Your task to perform on an android device: Is it going to rain today? Image 0: 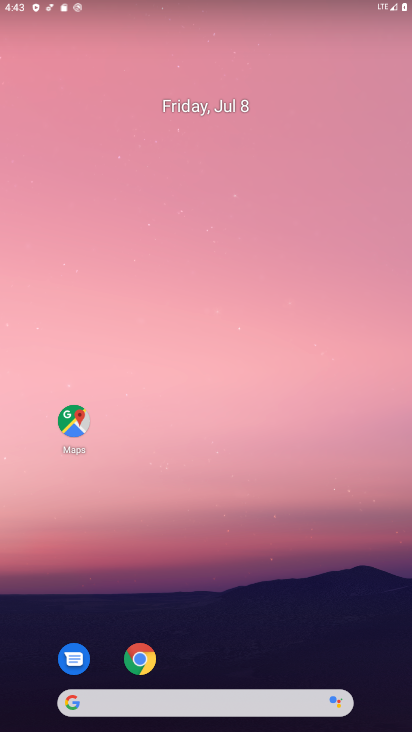
Step 0: drag from (288, 342) to (341, 86)
Your task to perform on an android device: Is it going to rain today? Image 1: 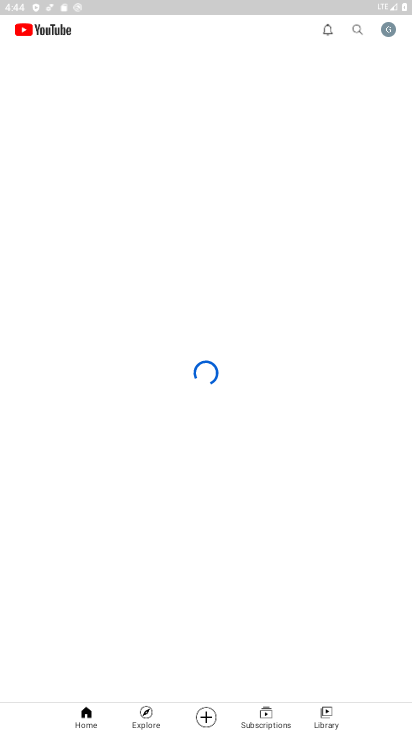
Step 1: press home button
Your task to perform on an android device: Is it going to rain today? Image 2: 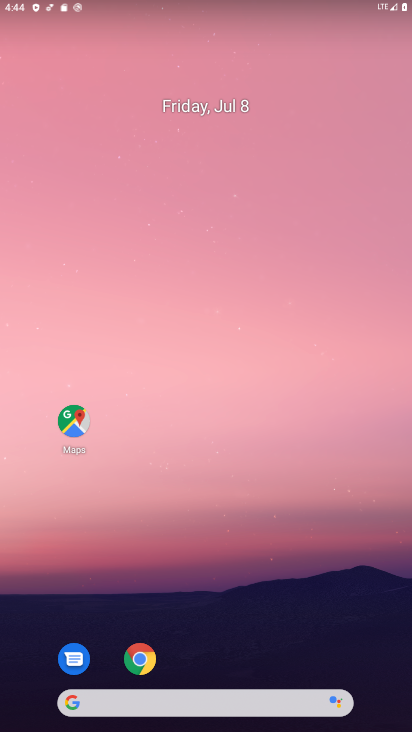
Step 2: click (128, 669)
Your task to perform on an android device: Is it going to rain today? Image 3: 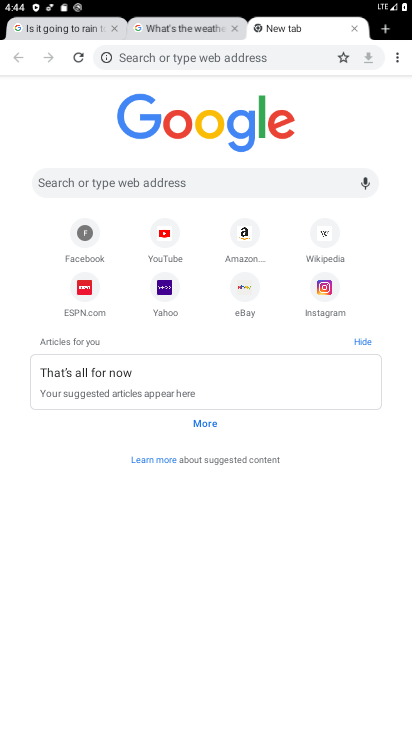
Step 3: click (209, 57)
Your task to perform on an android device: Is it going to rain today? Image 4: 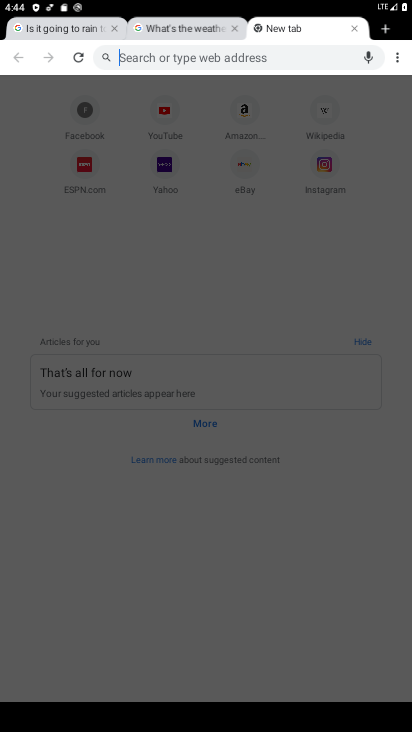
Step 4: type "Is it going to rain today?"
Your task to perform on an android device: Is it going to rain today? Image 5: 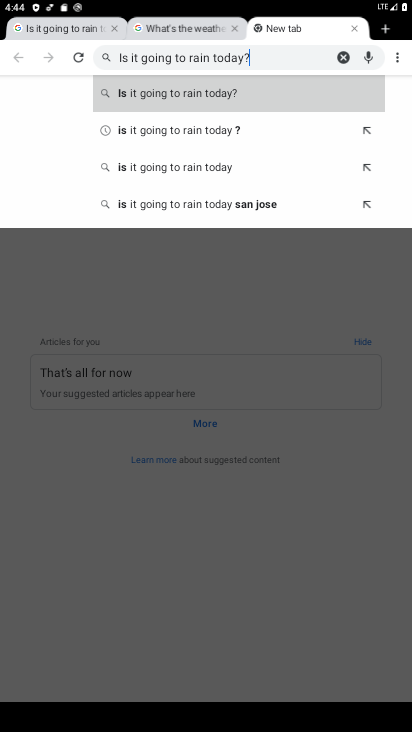
Step 5: type ""
Your task to perform on an android device: Is it going to rain today? Image 6: 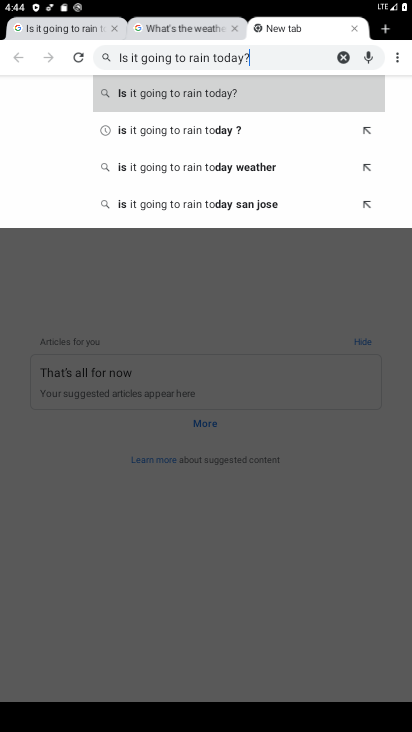
Step 6: click (332, 84)
Your task to perform on an android device: Is it going to rain today? Image 7: 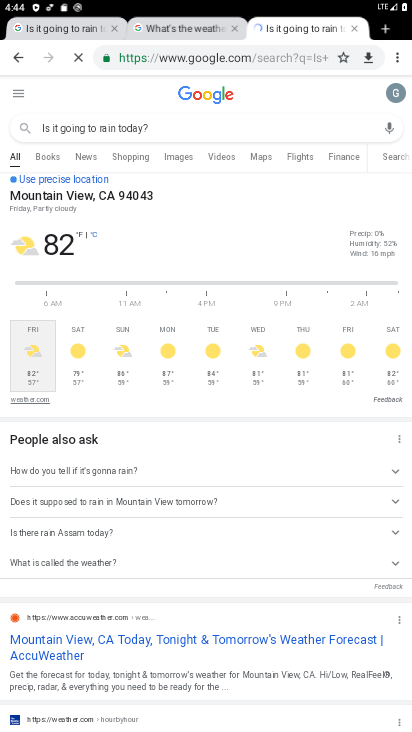
Step 7: task complete